Your task to perform on an android device: Toggle the flashlight Image 0: 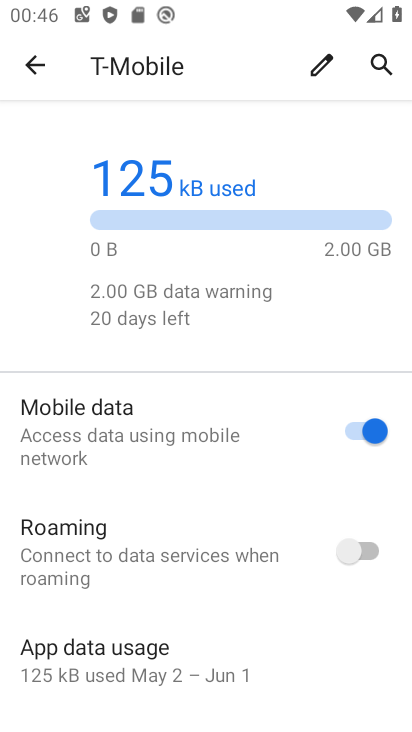
Step 0: click (24, 61)
Your task to perform on an android device: Toggle the flashlight Image 1: 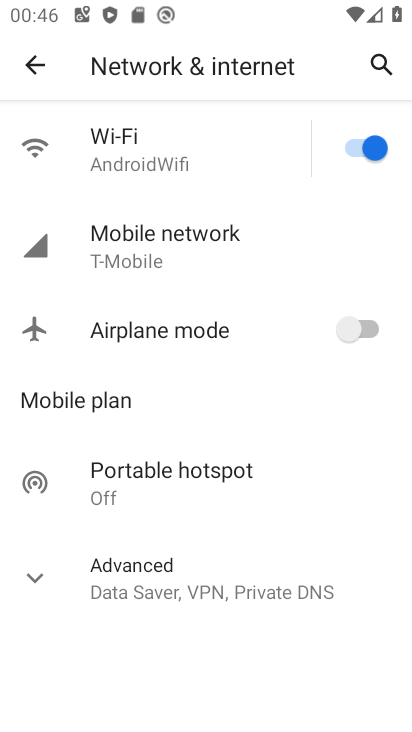
Step 1: click (52, 72)
Your task to perform on an android device: Toggle the flashlight Image 2: 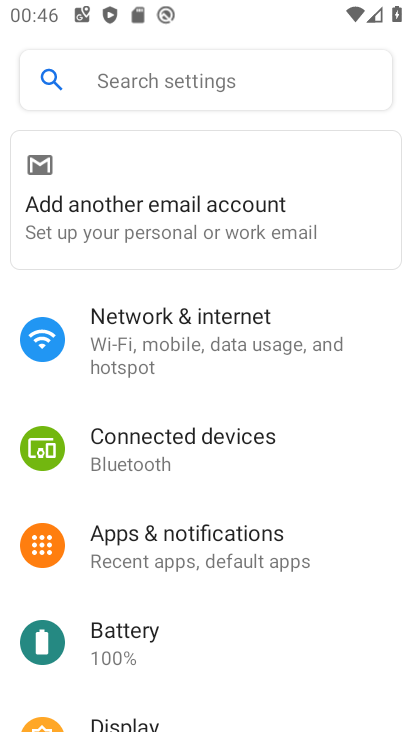
Step 2: click (275, 82)
Your task to perform on an android device: Toggle the flashlight Image 3: 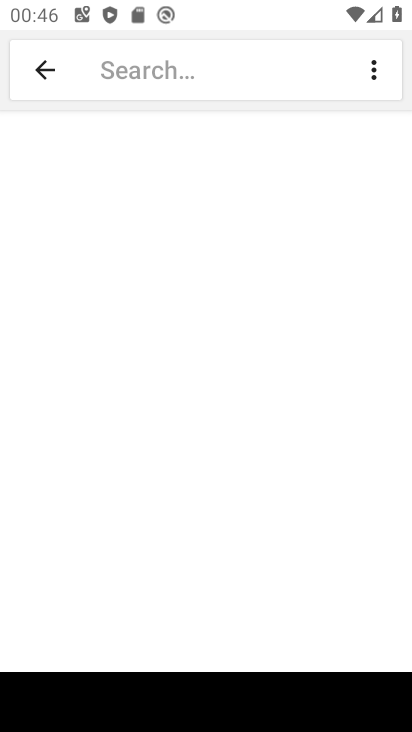
Step 3: type "flashlight"
Your task to perform on an android device: Toggle the flashlight Image 4: 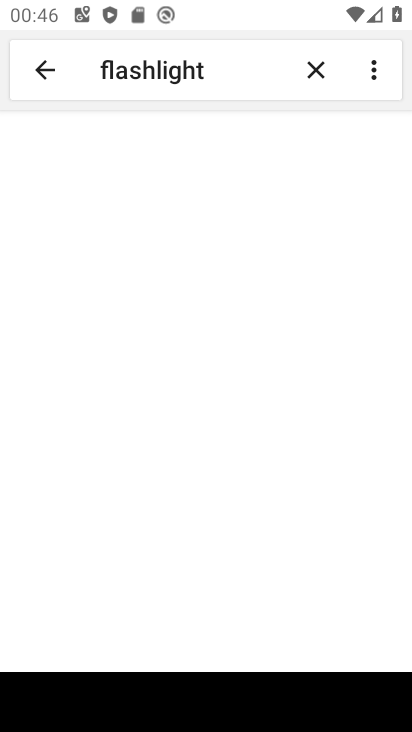
Step 4: task complete